Your task to perform on an android device: Search for Italian restaurants on Maps Image 0: 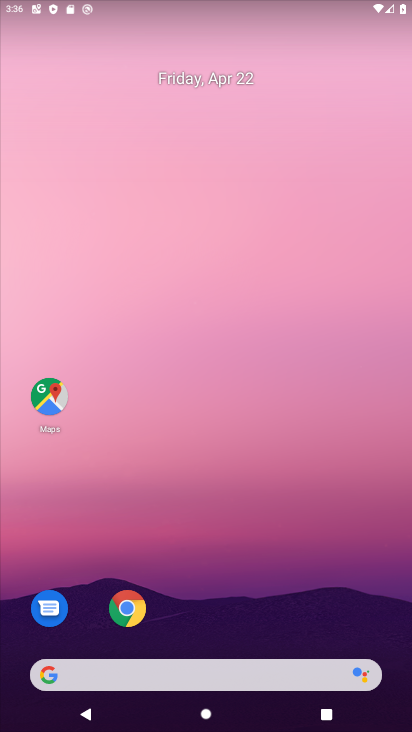
Step 0: click (46, 400)
Your task to perform on an android device: Search for Italian restaurants on Maps Image 1: 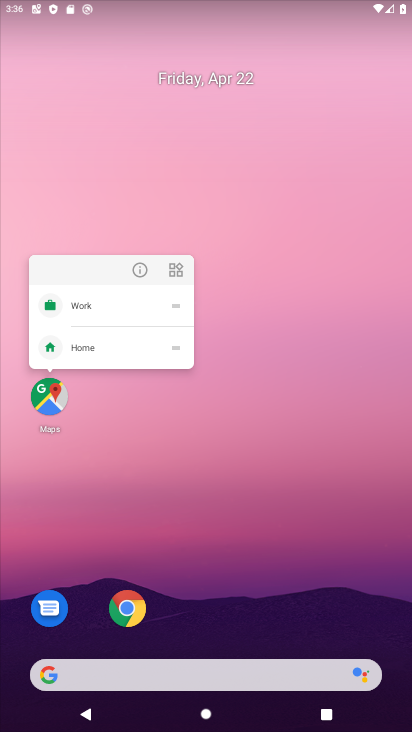
Step 1: click (46, 400)
Your task to perform on an android device: Search for Italian restaurants on Maps Image 2: 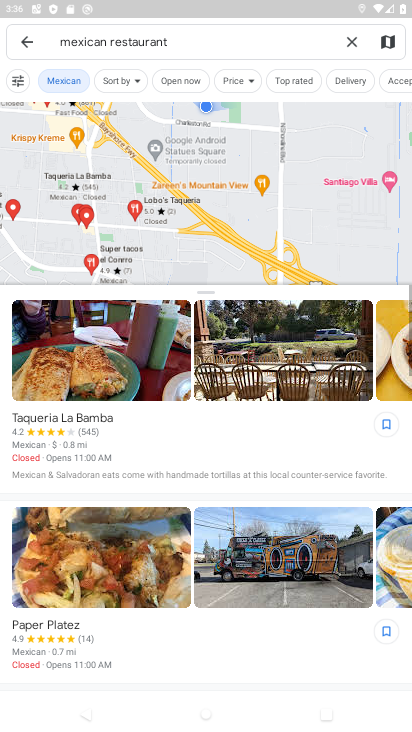
Step 2: click (348, 45)
Your task to perform on an android device: Search for Italian restaurants on Maps Image 3: 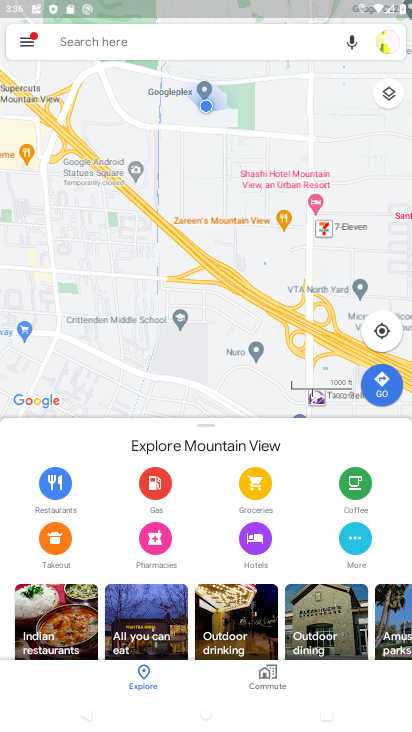
Step 3: click (289, 41)
Your task to perform on an android device: Search for Italian restaurants on Maps Image 4: 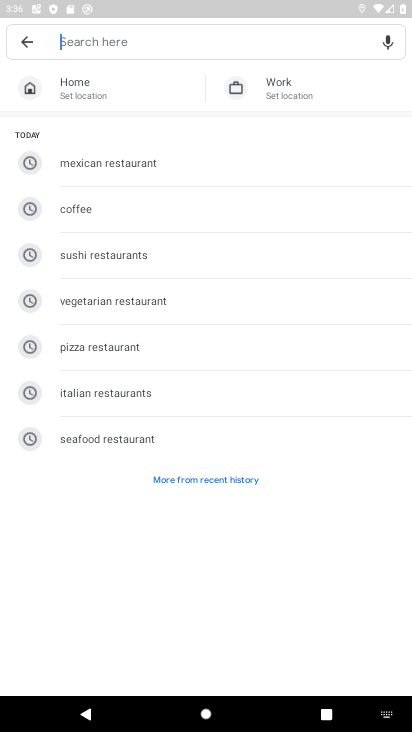
Step 4: click (228, 394)
Your task to perform on an android device: Search for Italian restaurants on Maps Image 5: 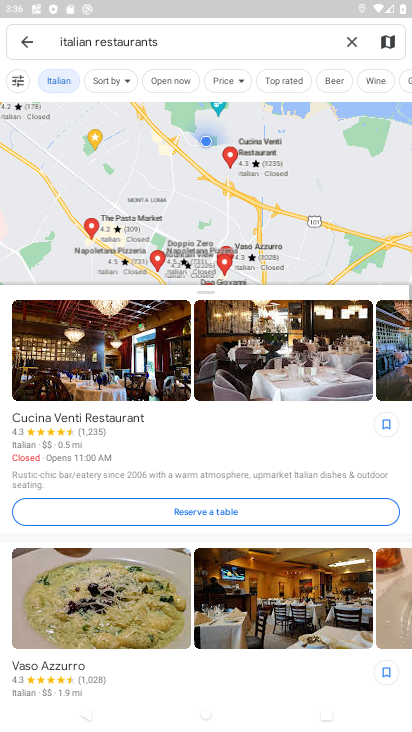
Step 5: task complete